Your task to perform on an android device: turn on bluetooth scan Image 0: 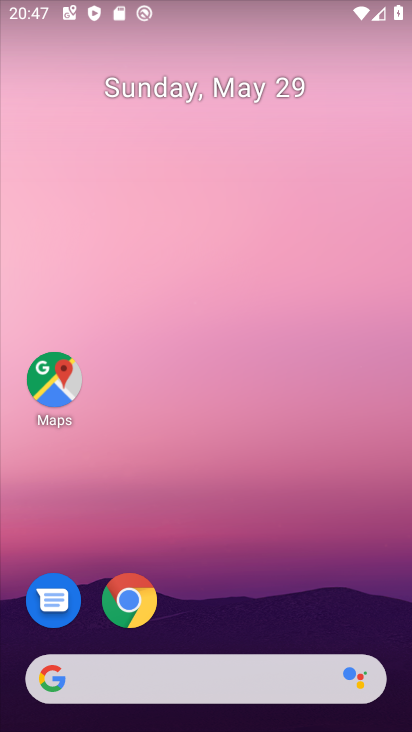
Step 0: drag from (295, 595) to (306, 191)
Your task to perform on an android device: turn on bluetooth scan Image 1: 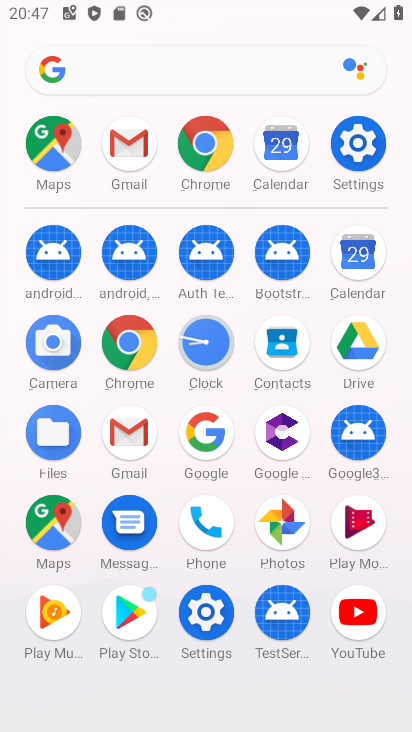
Step 1: click (360, 157)
Your task to perform on an android device: turn on bluetooth scan Image 2: 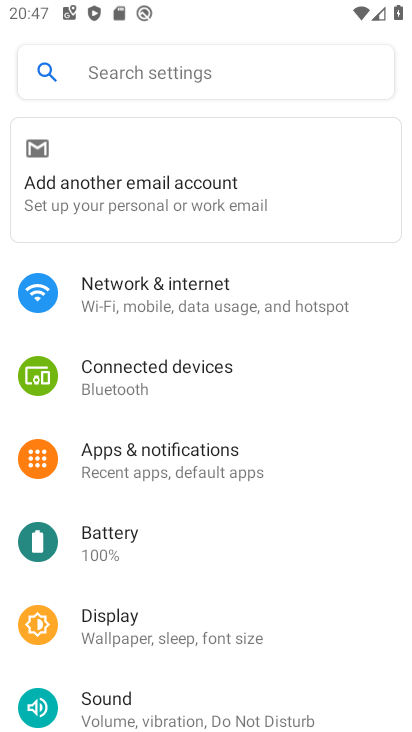
Step 2: drag from (247, 543) to (270, 217)
Your task to perform on an android device: turn on bluetooth scan Image 3: 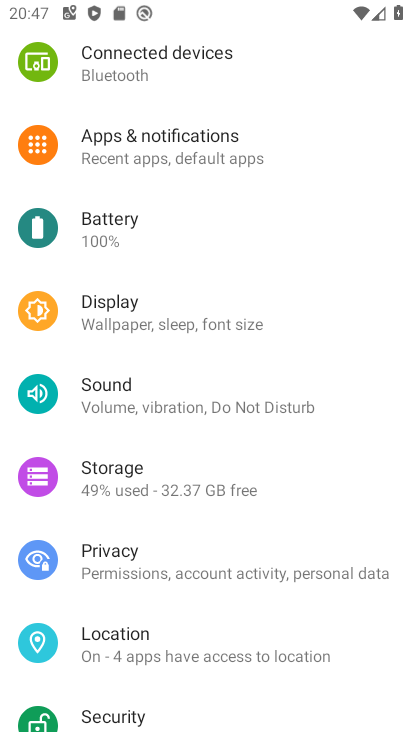
Step 3: click (192, 649)
Your task to perform on an android device: turn on bluetooth scan Image 4: 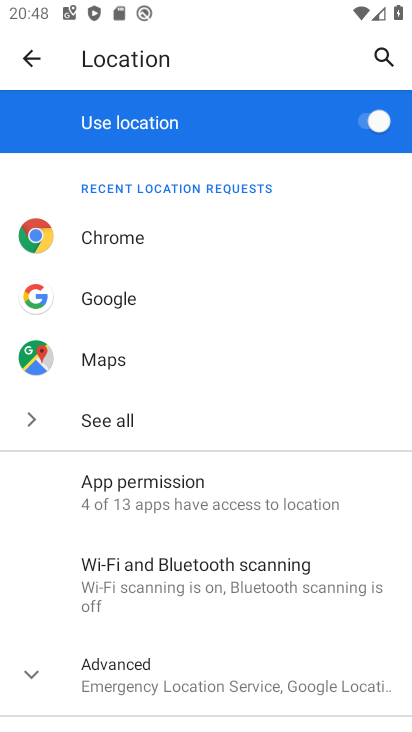
Step 4: click (235, 570)
Your task to perform on an android device: turn on bluetooth scan Image 5: 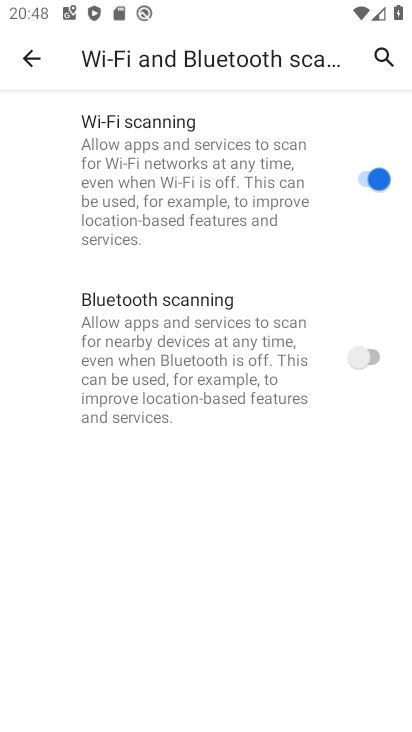
Step 5: click (371, 353)
Your task to perform on an android device: turn on bluetooth scan Image 6: 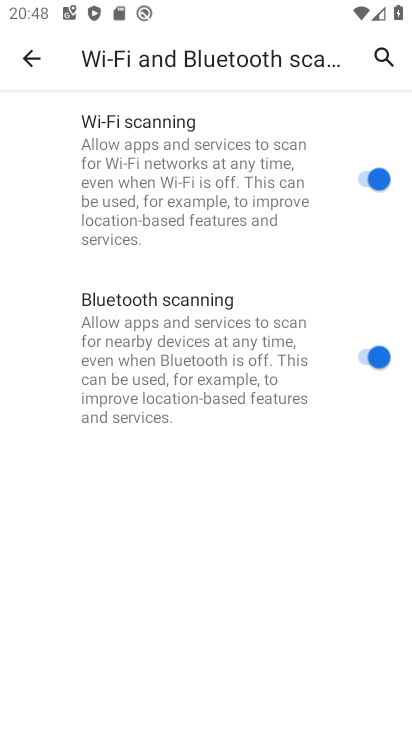
Step 6: task complete